Your task to perform on an android device: Open wifi settings Image 0: 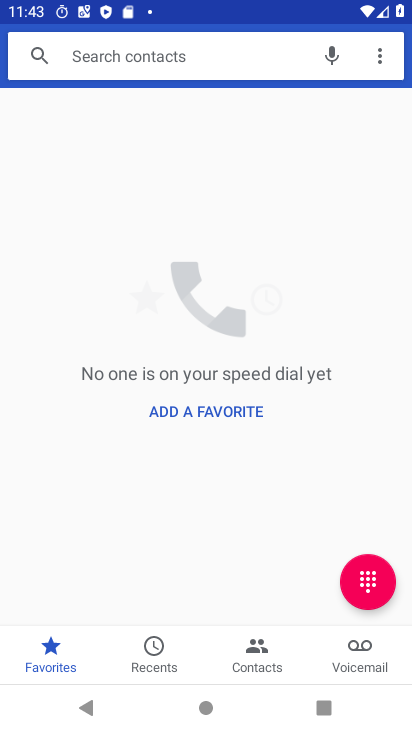
Step 0: press home button
Your task to perform on an android device: Open wifi settings Image 1: 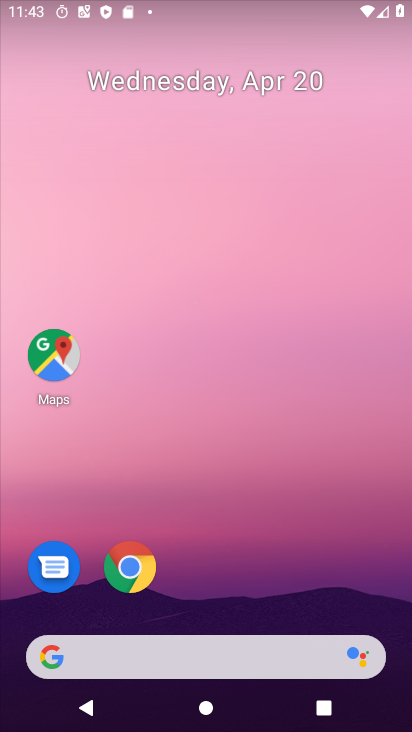
Step 1: drag from (208, 581) to (160, 77)
Your task to perform on an android device: Open wifi settings Image 2: 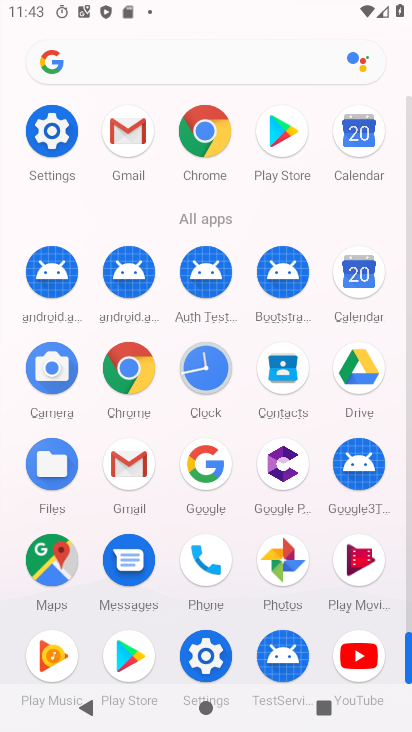
Step 2: click (34, 148)
Your task to perform on an android device: Open wifi settings Image 3: 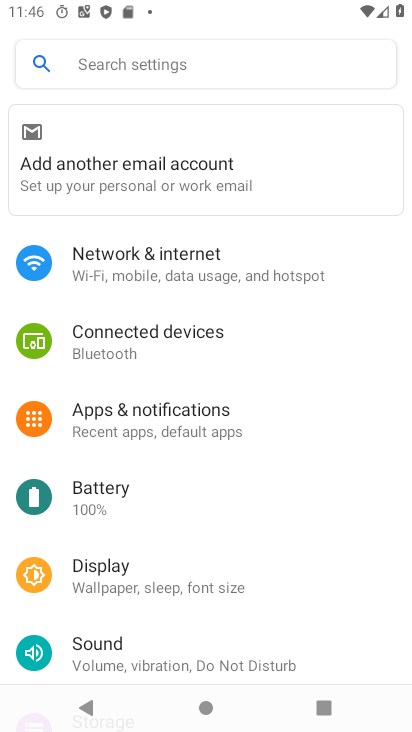
Step 3: click (170, 253)
Your task to perform on an android device: Open wifi settings Image 4: 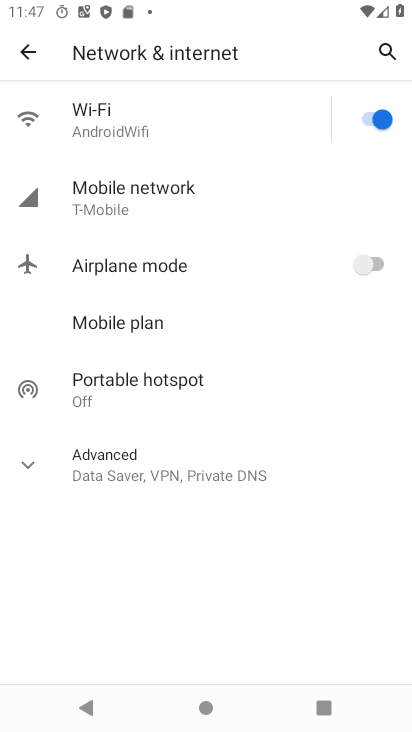
Step 4: click (87, 135)
Your task to perform on an android device: Open wifi settings Image 5: 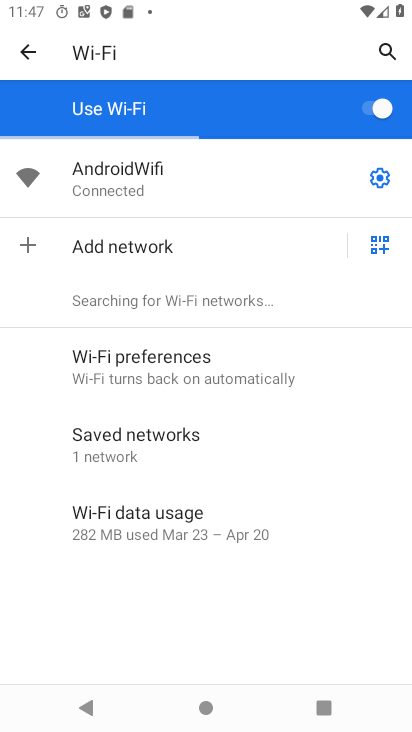
Step 5: task complete